Your task to perform on an android device: delete browsing data in the chrome app Image 0: 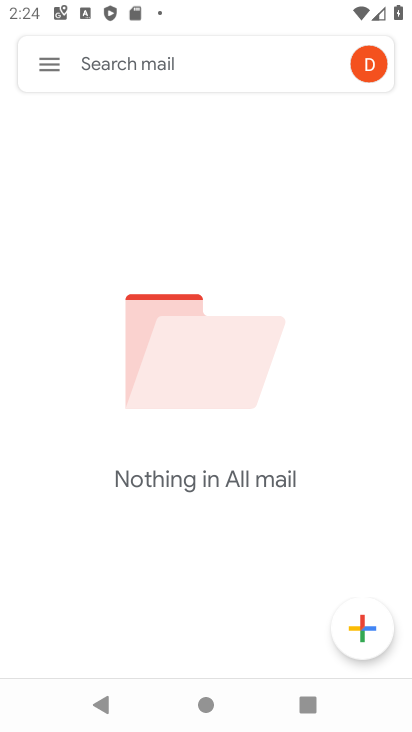
Step 0: press home button
Your task to perform on an android device: delete browsing data in the chrome app Image 1: 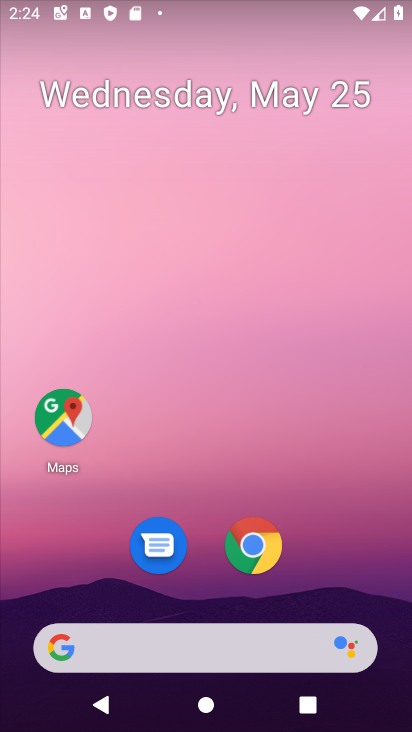
Step 1: drag from (336, 524) to (267, 62)
Your task to perform on an android device: delete browsing data in the chrome app Image 2: 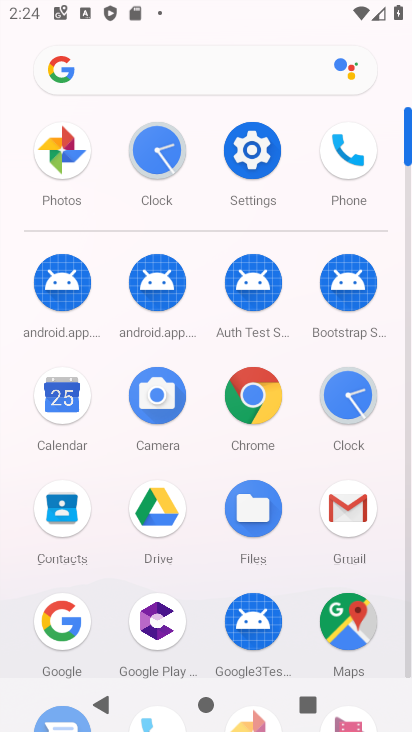
Step 2: click (237, 386)
Your task to perform on an android device: delete browsing data in the chrome app Image 3: 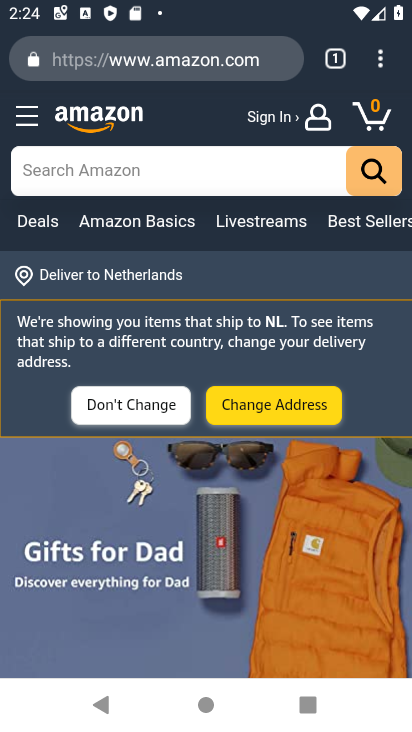
Step 3: click (374, 79)
Your task to perform on an android device: delete browsing data in the chrome app Image 4: 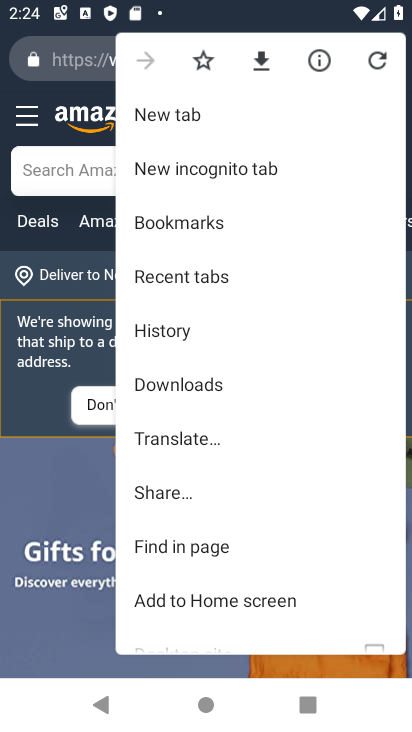
Step 4: drag from (240, 580) to (243, 276)
Your task to perform on an android device: delete browsing data in the chrome app Image 5: 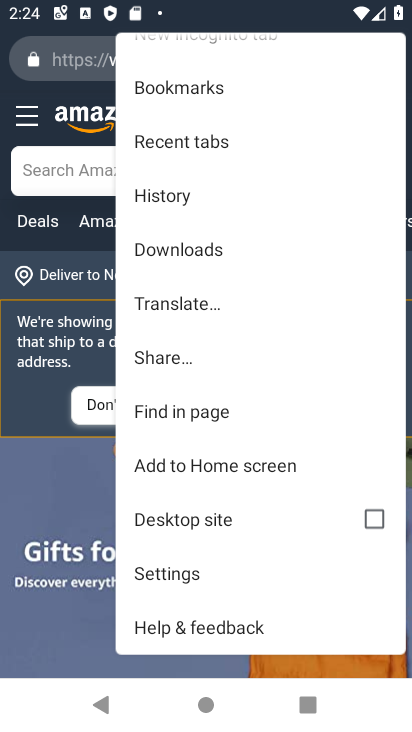
Step 5: click (221, 558)
Your task to perform on an android device: delete browsing data in the chrome app Image 6: 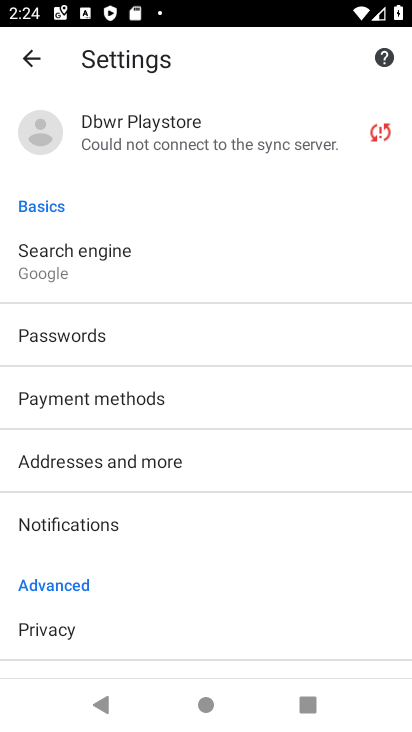
Step 6: task complete